Your task to perform on an android device: Go to CNN.com Image 0: 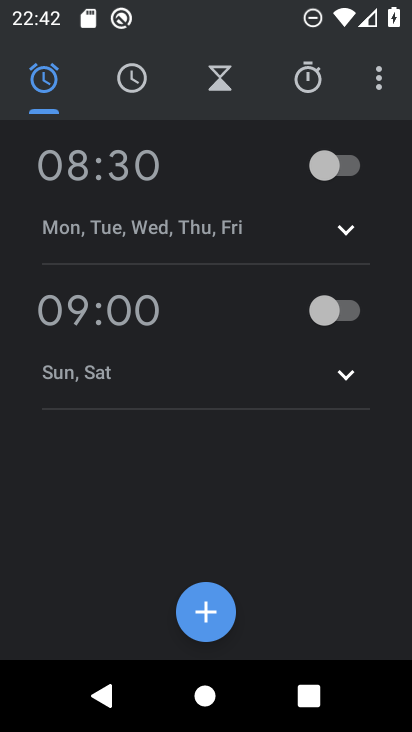
Step 0: press home button
Your task to perform on an android device: Go to CNN.com Image 1: 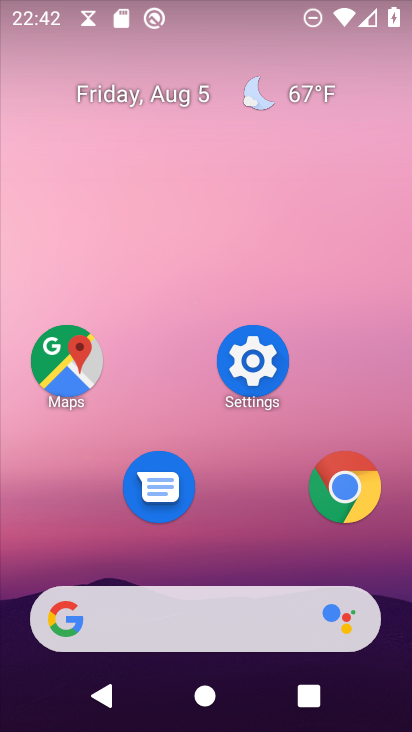
Step 1: click (349, 489)
Your task to perform on an android device: Go to CNN.com Image 2: 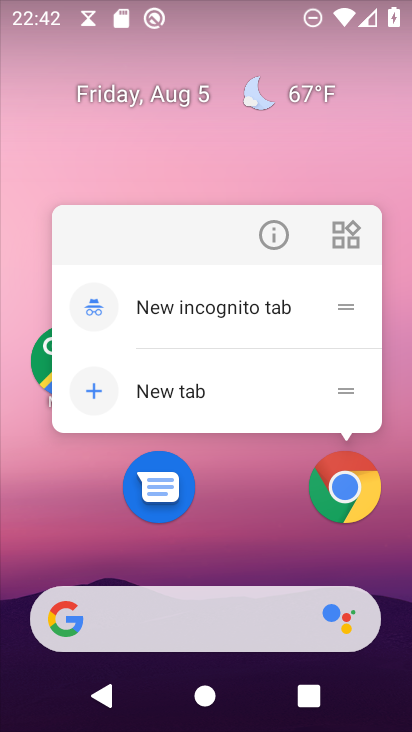
Step 2: click (349, 488)
Your task to perform on an android device: Go to CNN.com Image 3: 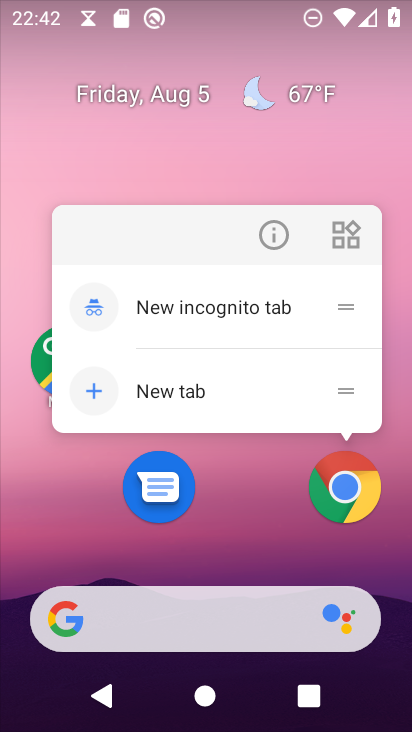
Step 3: click (349, 494)
Your task to perform on an android device: Go to CNN.com Image 4: 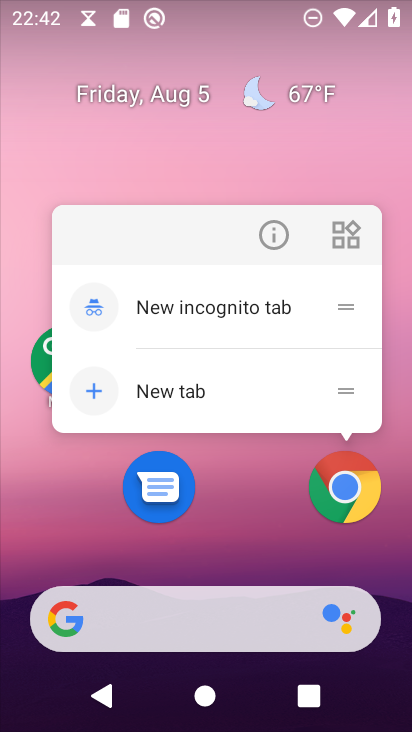
Step 4: click (349, 494)
Your task to perform on an android device: Go to CNN.com Image 5: 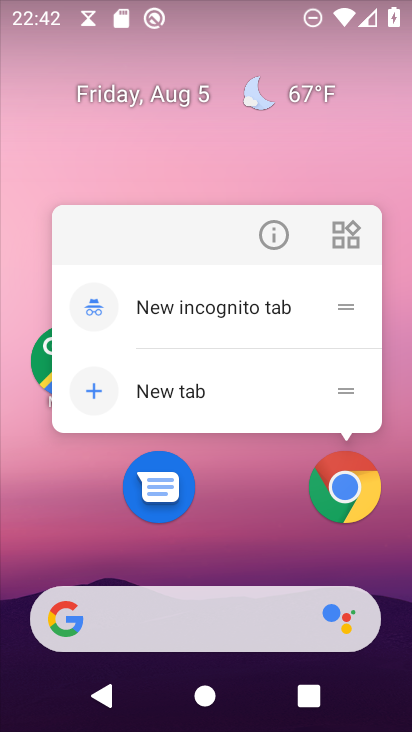
Step 5: click (349, 494)
Your task to perform on an android device: Go to CNN.com Image 6: 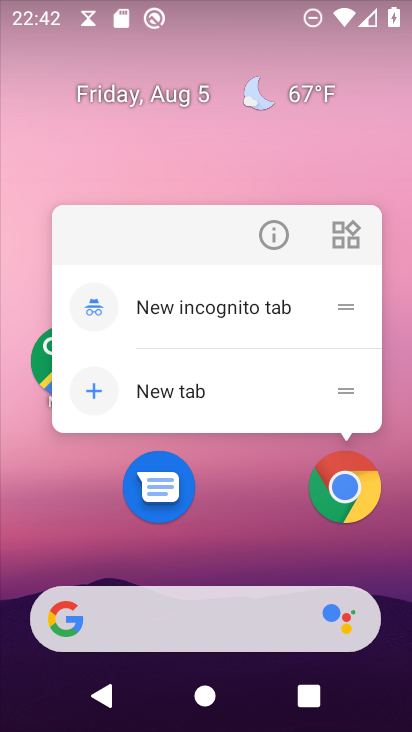
Step 6: click (349, 494)
Your task to perform on an android device: Go to CNN.com Image 7: 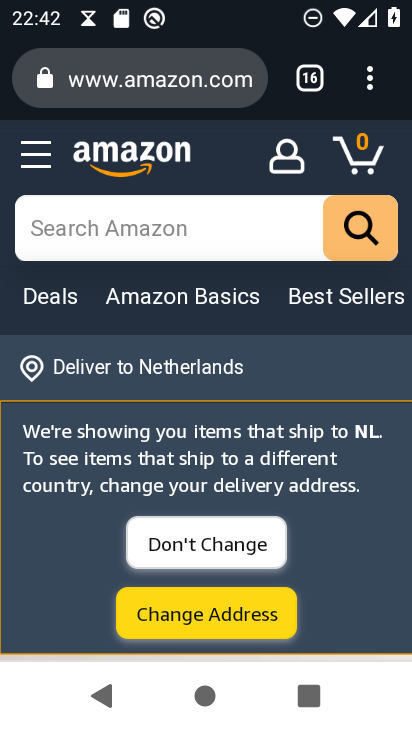
Step 7: drag from (374, 78) to (186, 155)
Your task to perform on an android device: Go to CNN.com Image 8: 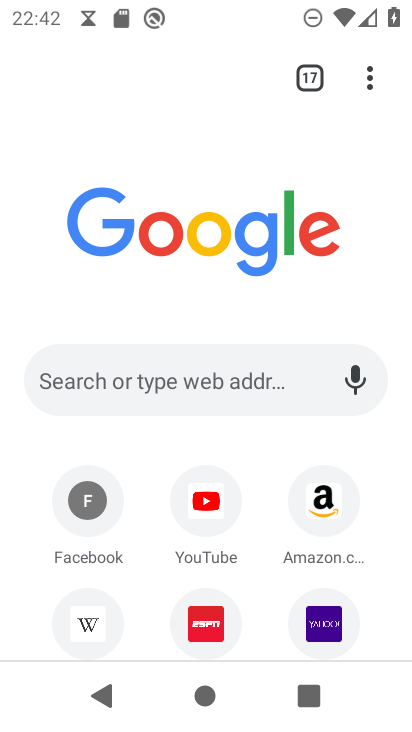
Step 8: drag from (242, 475) to (369, 256)
Your task to perform on an android device: Go to CNN.com Image 9: 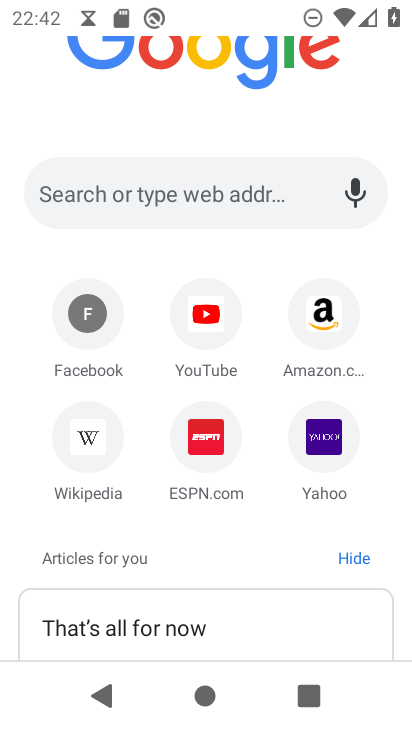
Step 9: click (146, 190)
Your task to perform on an android device: Go to CNN.com Image 10: 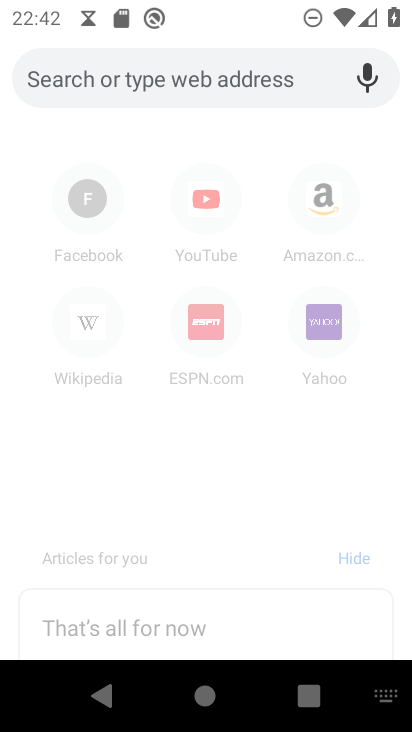
Step 10: type "CNN.com"
Your task to perform on an android device: Go to CNN.com Image 11: 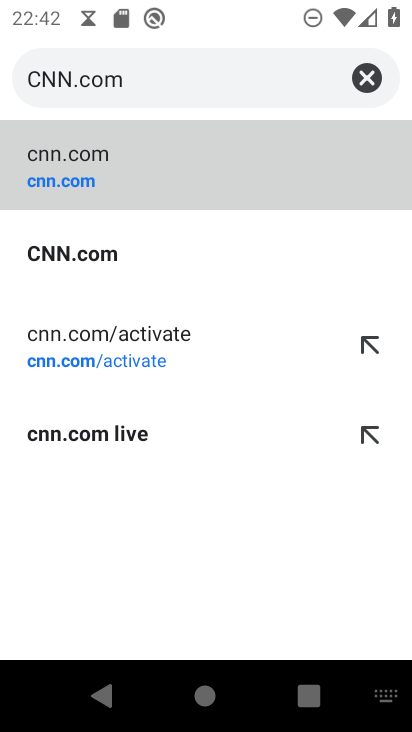
Step 11: click (104, 156)
Your task to perform on an android device: Go to CNN.com Image 12: 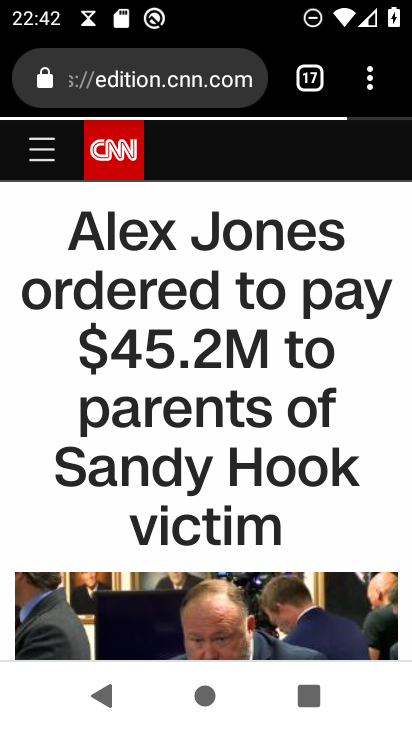
Step 12: task complete